Your task to perform on an android device: Go to display settings Image 0: 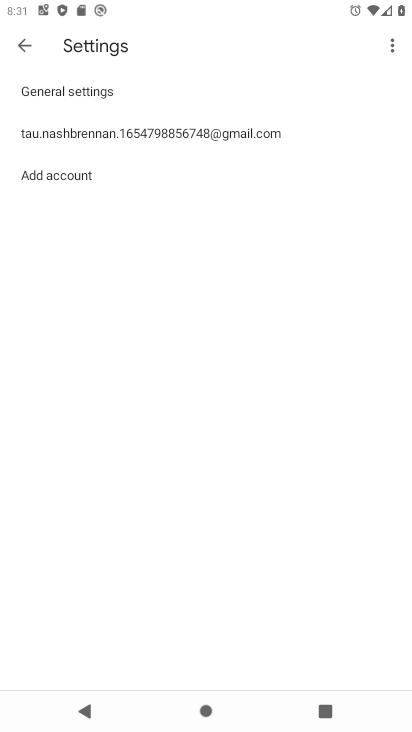
Step 0: press home button
Your task to perform on an android device: Go to display settings Image 1: 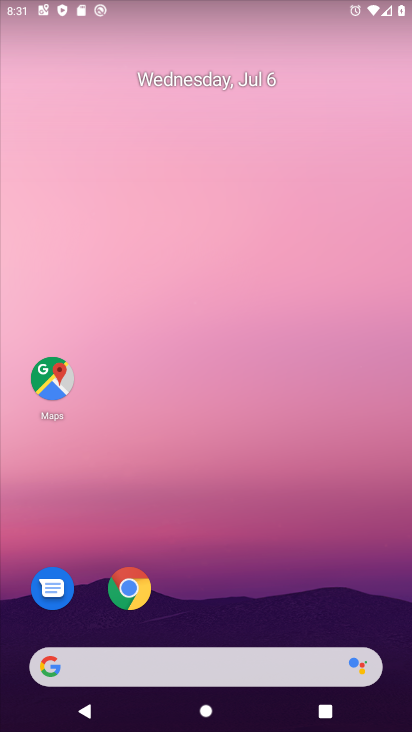
Step 1: drag from (234, 632) to (294, 224)
Your task to perform on an android device: Go to display settings Image 2: 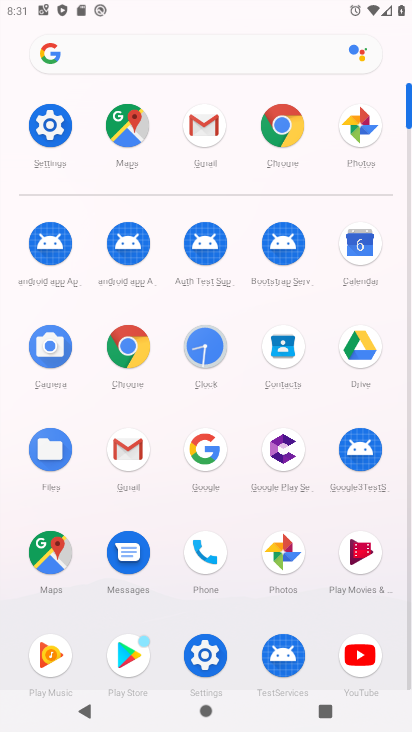
Step 2: click (56, 124)
Your task to perform on an android device: Go to display settings Image 3: 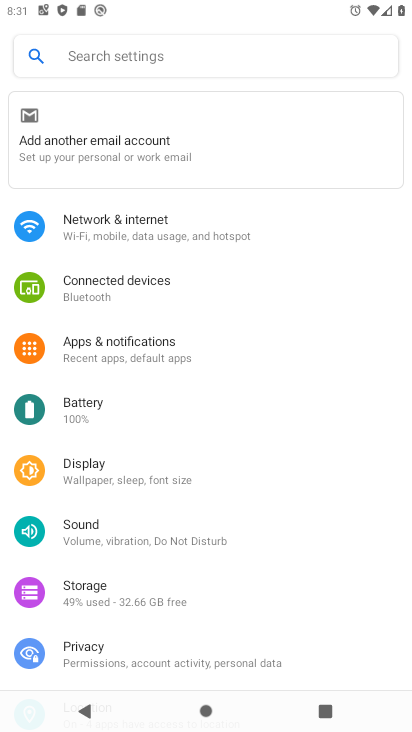
Step 3: click (144, 472)
Your task to perform on an android device: Go to display settings Image 4: 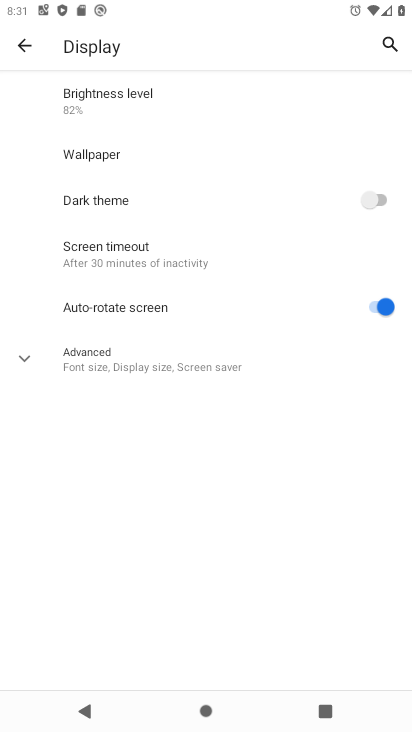
Step 4: task complete